Your task to perform on an android device: Search for sushi restaurants on Maps Image 0: 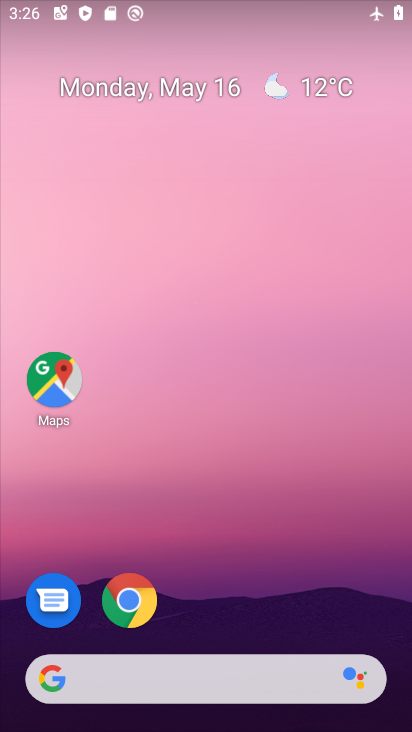
Step 0: drag from (217, 664) to (297, 13)
Your task to perform on an android device: Search for sushi restaurants on Maps Image 1: 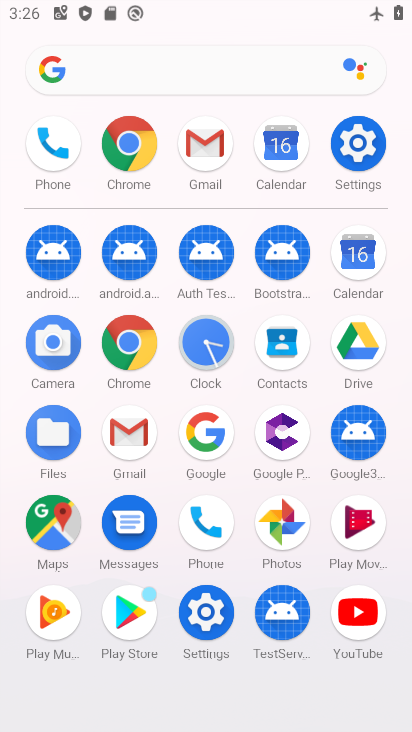
Step 1: click (50, 539)
Your task to perform on an android device: Search for sushi restaurants on Maps Image 2: 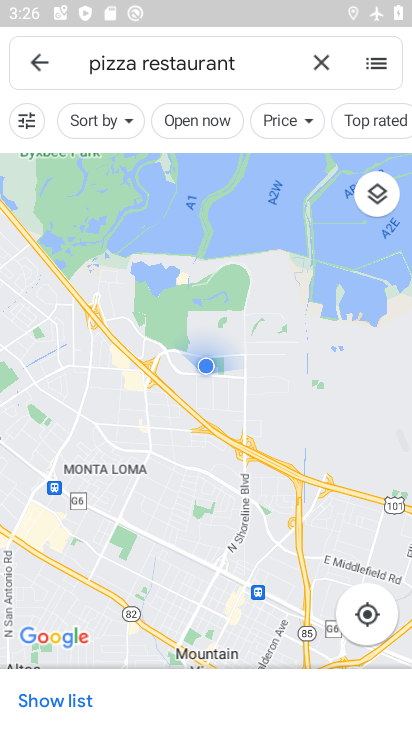
Step 2: click (330, 51)
Your task to perform on an android device: Search for sushi restaurants on Maps Image 3: 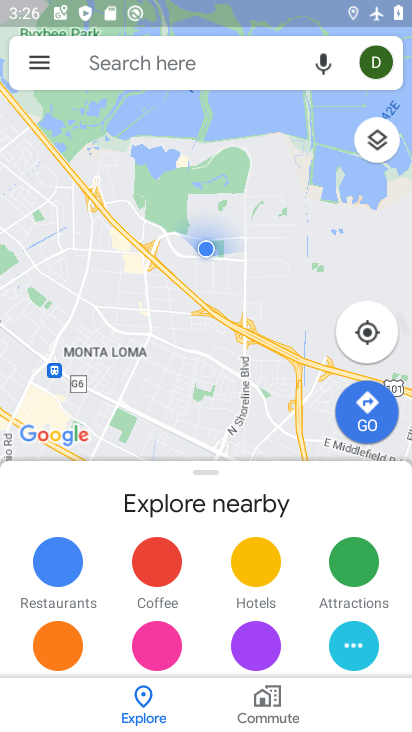
Step 3: click (90, 54)
Your task to perform on an android device: Search for sushi restaurants on Maps Image 4: 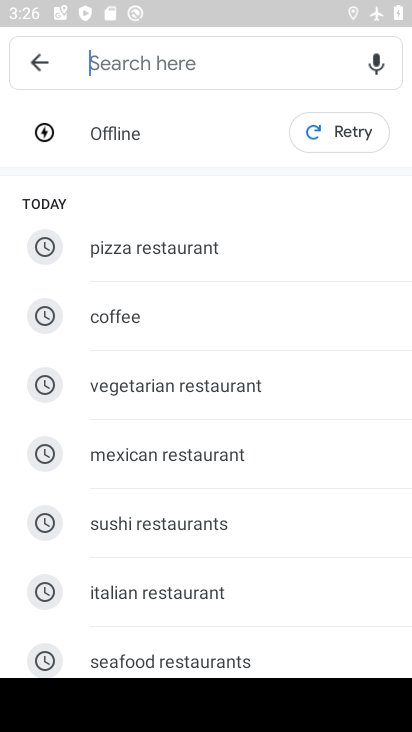
Step 4: click (161, 509)
Your task to perform on an android device: Search for sushi restaurants on Maps Image 5: 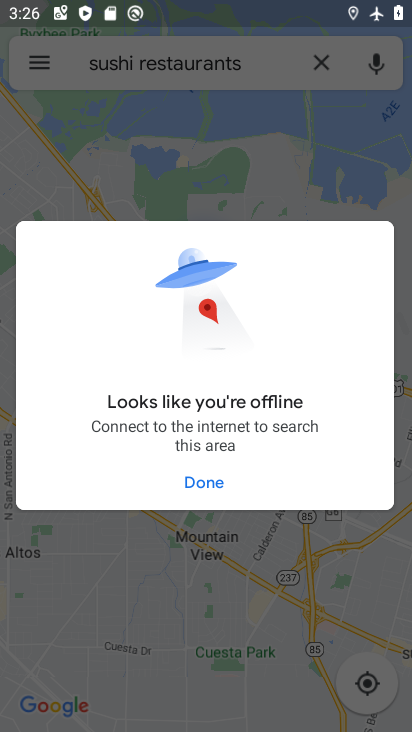
Step 5: task complete